Your task to perform on an android device: install app "Google Play Games" Image 0: 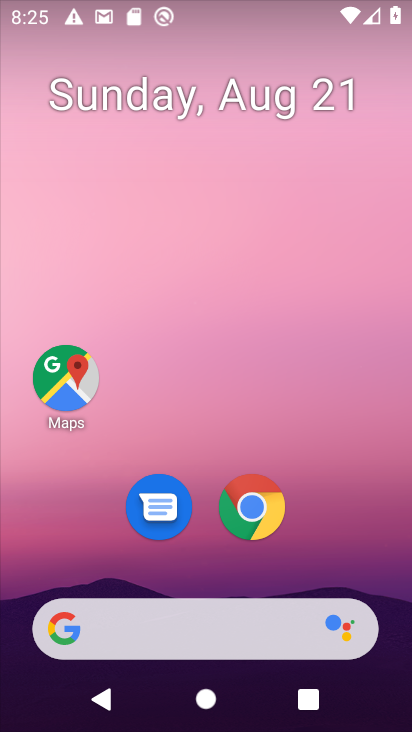
Step 0: drag from (214, 563) to (249, 163)
Your task to perform on an android device: install app "Google Play Games" Image 1: 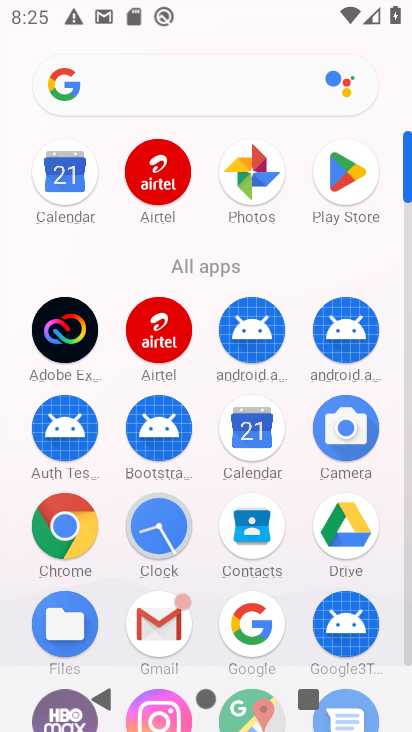
Step 1: drag from (203, 627) to (203, 442)
Your task to perform on an android device: install app "Google Play Games" Image 2: 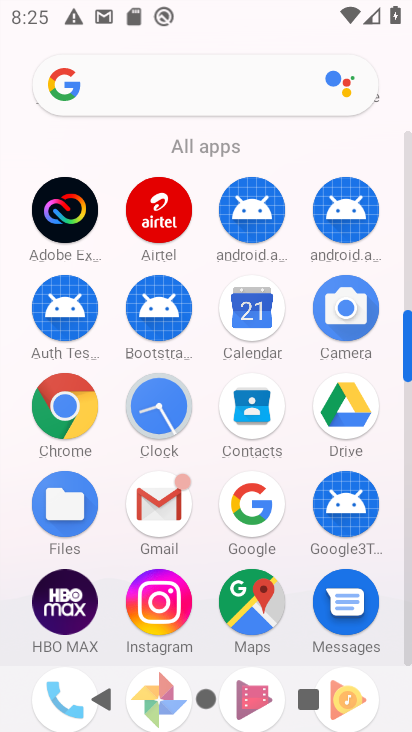
Step 2: drag from (202, 631) to (202, 366)
Your task to perform on an android device: install app "Google Play Games" Image 3: 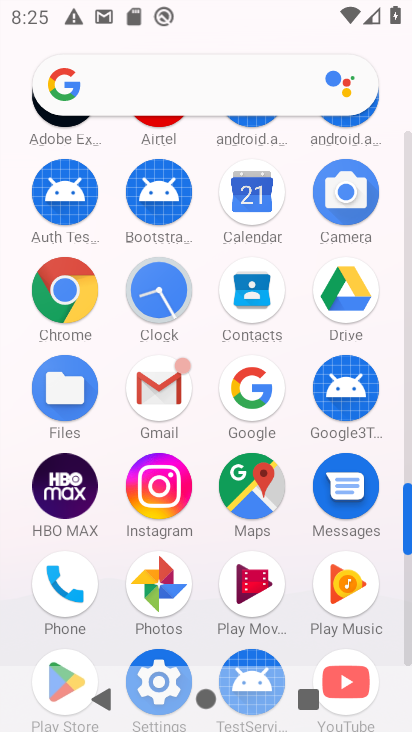
Step 3: click (65, 651)
Your task to perform on an android device: install app "Google Play Games" Image 4: 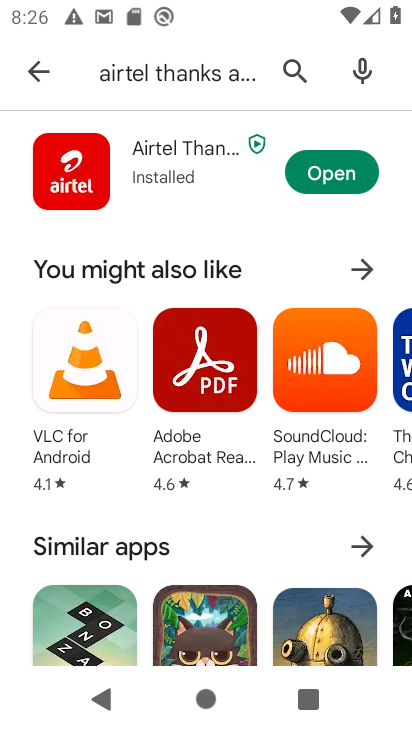
Step 4: click (34, 69)
Your task to perform on an android device: install app "Google Play Games" Image 5: 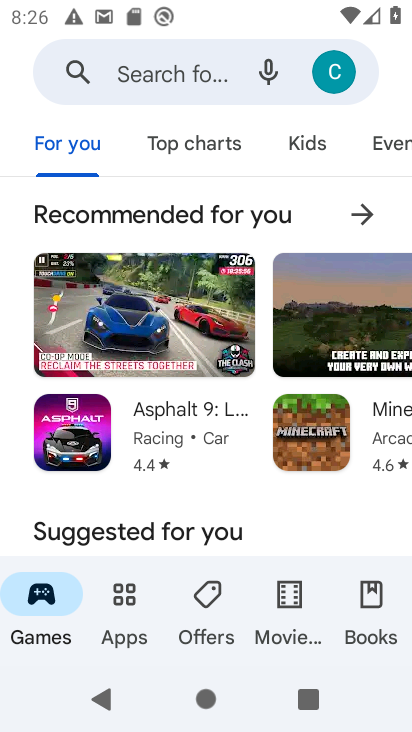
Step 5: click (148, 79)
Your task to perform on an android device: install app "Google Play Games" Image 6: 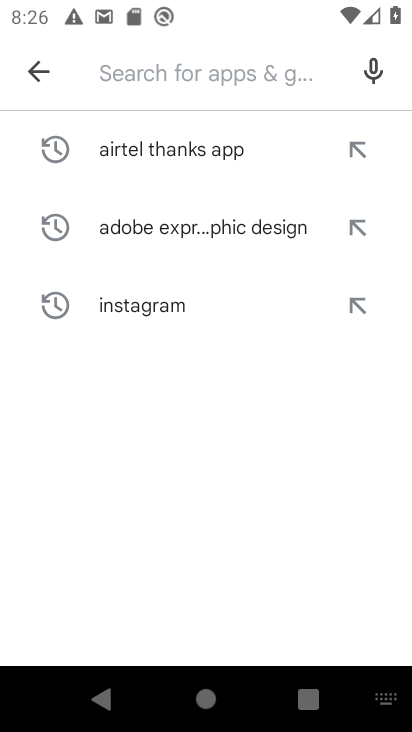
Step 6: type "Google Play Games"
Your task to perform on an android device: install app "Google Play Games" Image 7: 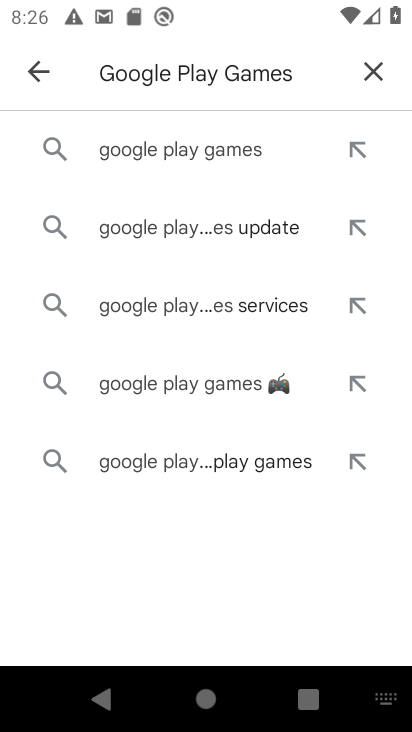
Step 7: click (220, 148)
Your task to perform on an android device: install app "Google Play Games" Image 8: 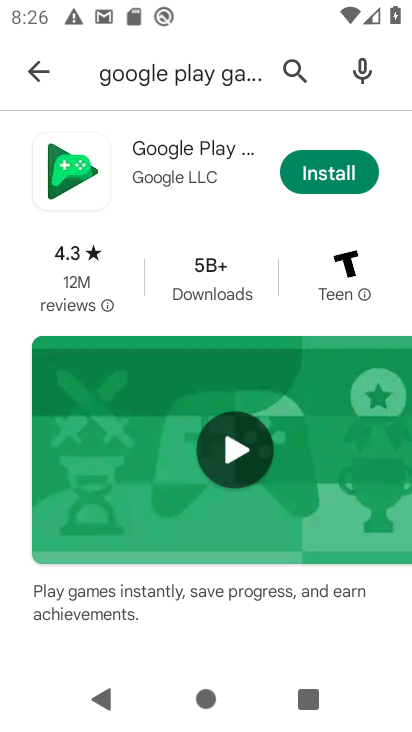
Step 8: click (295, 166)
Your task to perform on an android device: install app "Google Play Games" Image 9: 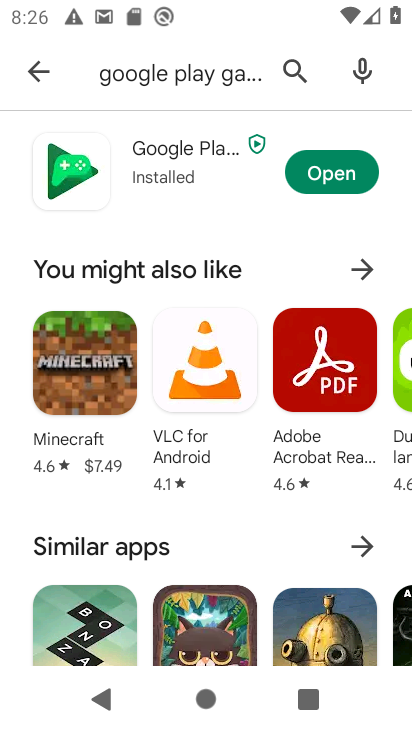
Step 9: click (295, 166)
Your task to perform on an android device: install app "Google Play Games" Image 10: 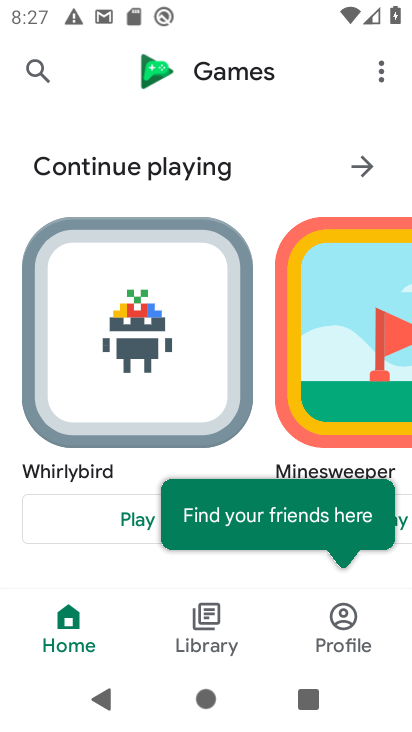
Step 10: task complete